Your task to perform on an android device: change the clock display to digital Image 0: 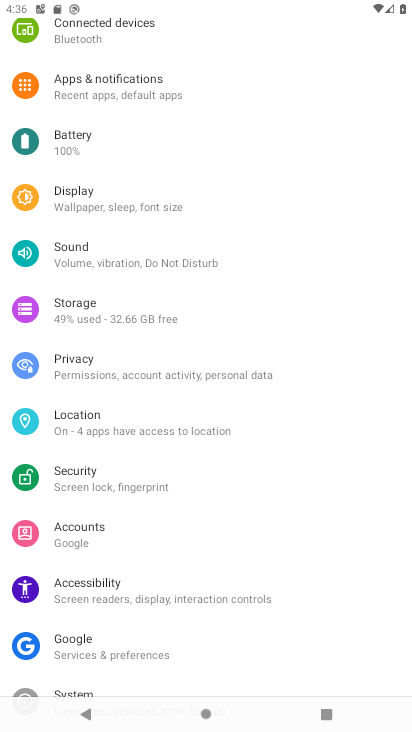
Step 0: press back button
Your task to perform on an android device: change the clock display to digital Image 1: 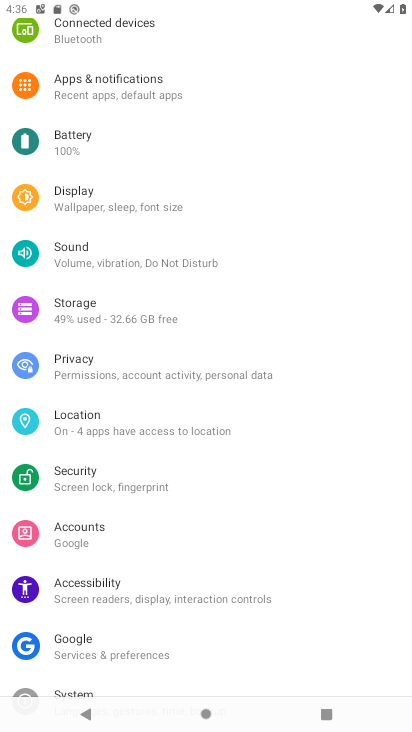
Step 1: press back button
Your task to perform on an android device: change the clock display to digital Image 2: 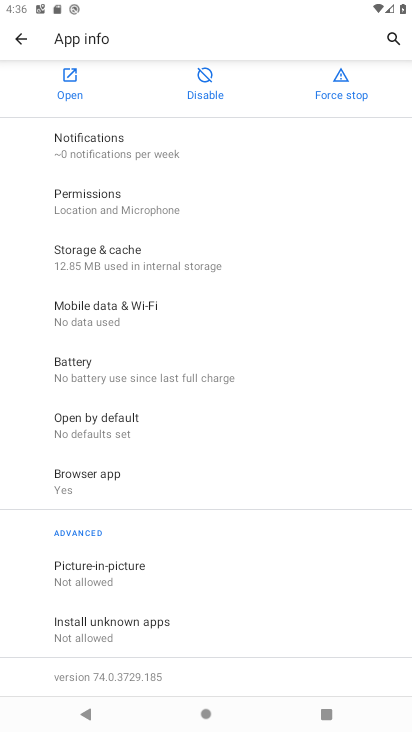
Step 2: press home button
Your task to perform on an android device: change the clock display to digital Image 3: 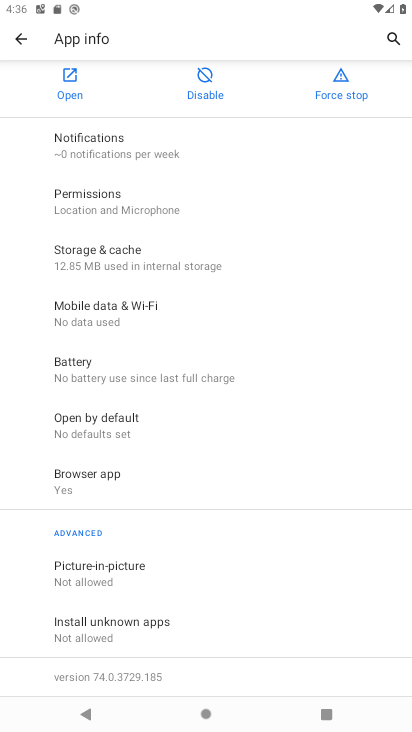
Step 3: press home button
Your task to perform on an android device: change the clock display to digital Image 4: 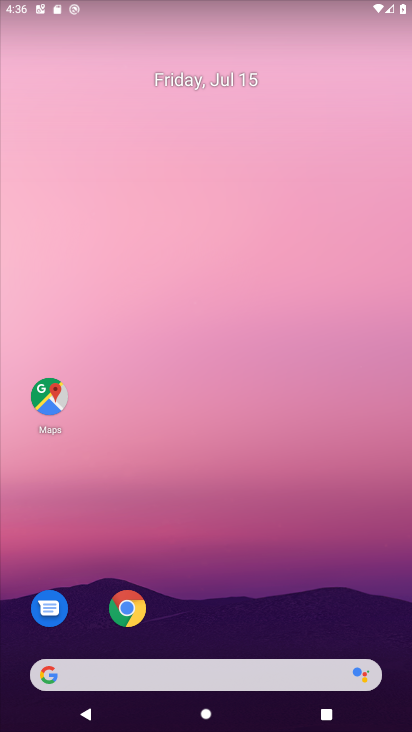
Step 4: drag from (277, 582) to (293, 111)
Your task to perform on an android device: change the clock display to digital Image 5: 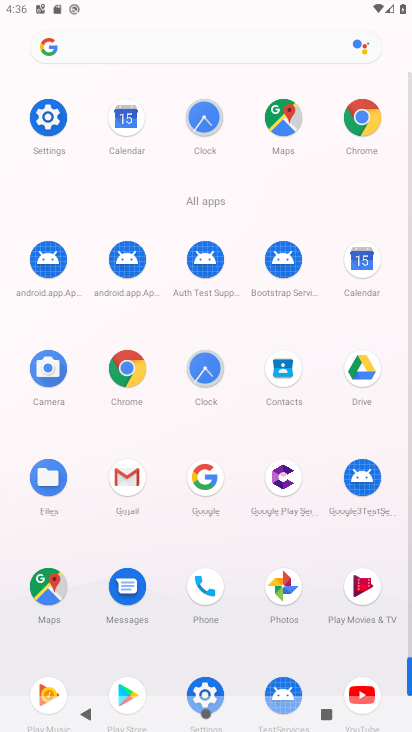
Step 5: click (203, 365)
Your task to perform on an android device: change the clock display to digital Image 6: 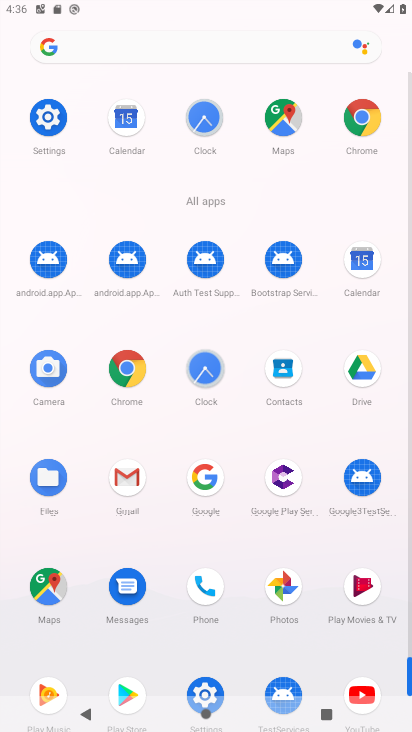
Step 6: click (204, 366)
Your task to perform on an android device: change the clock display to digital Image 7: 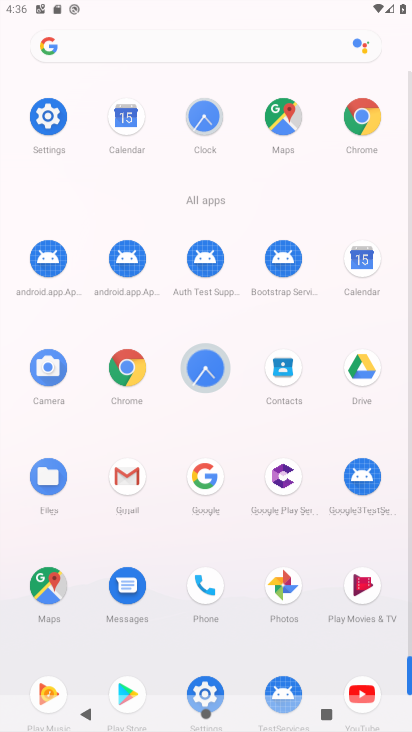
Step 7: click (205, 366)
Your task to perform on an android device: change the clock display to digital Image 8: 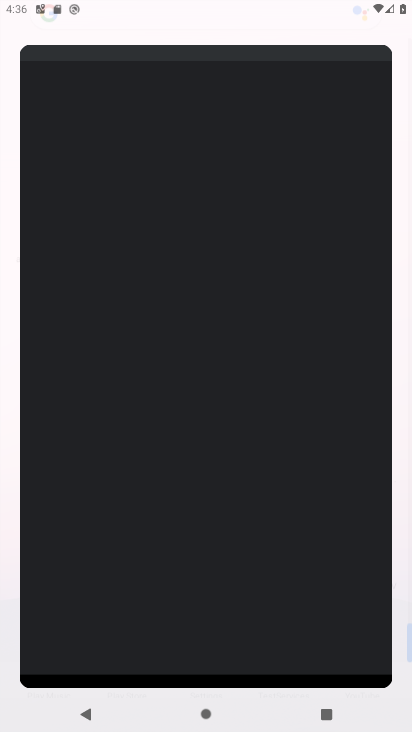
Step 8: click (206, 366)
Your task to perform on an android device: change the clock display to digital Image 9: 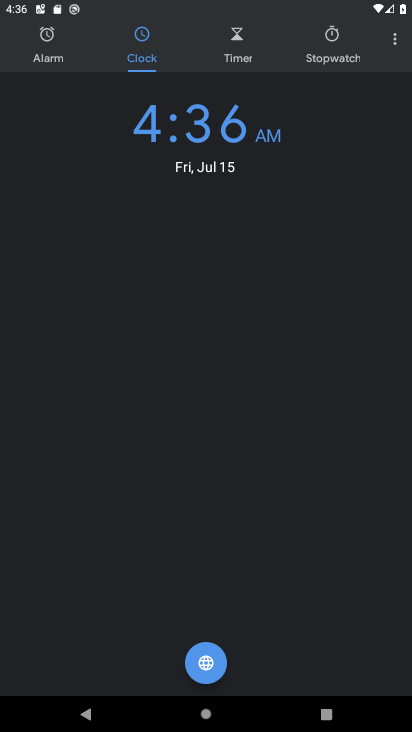
Step 9: drag from (396, 43) to (248, 378)
Your task to perform on an android device: change the clock display to digital Image 10: 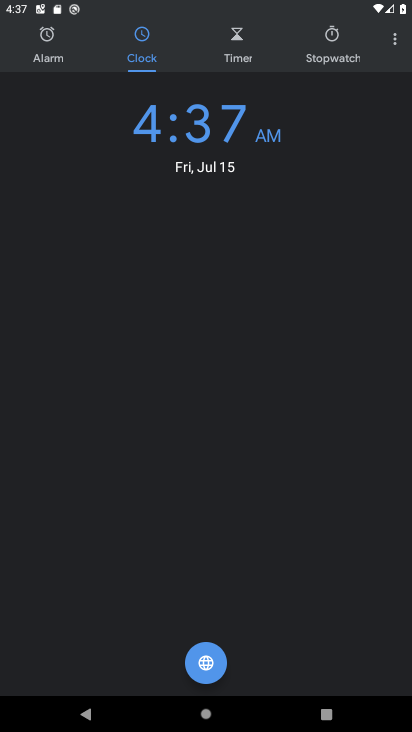
Step 10: drag from (397, 40) to (296, 69)
Your task to perform on an android device: change the clock display to digital Image 11: 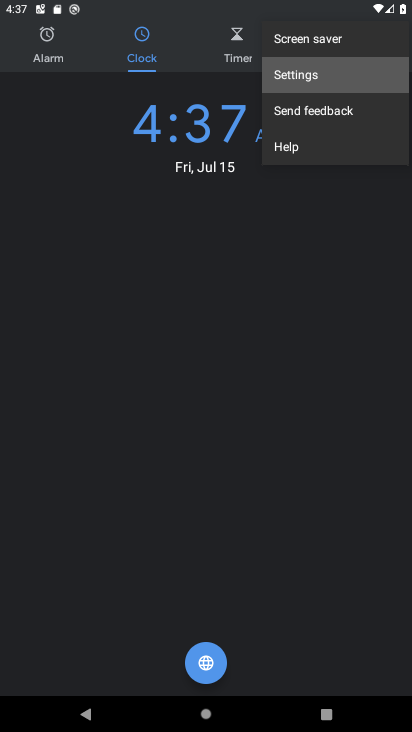
Step 11: click (296, 69)
Your task to perform on an android device: change the clock display to digital Image 12: 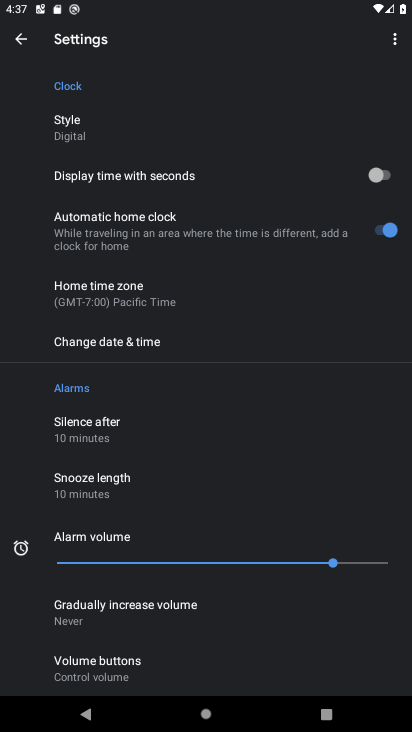
Step 12: click (379, 172)
Your task to perform on an android device: change the clock display to digital Image 13: 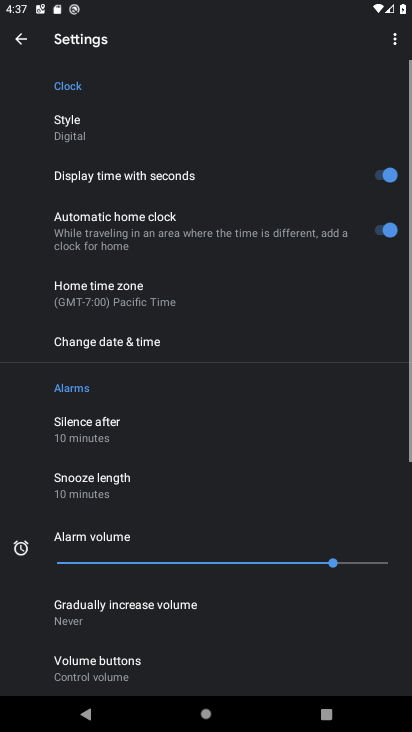
Step 13: click (387, 173)
Your task to perform on an android device: change the clock display to digital Image 14: 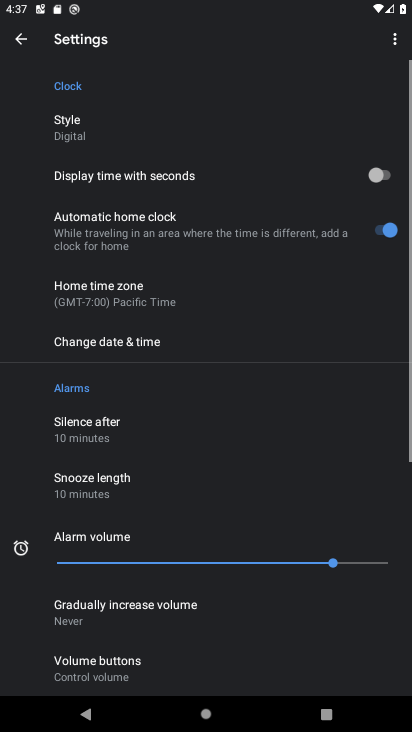
Step 14: click (110, 124)
Your task to perform on an android device: change the clock display to digital Image 15: 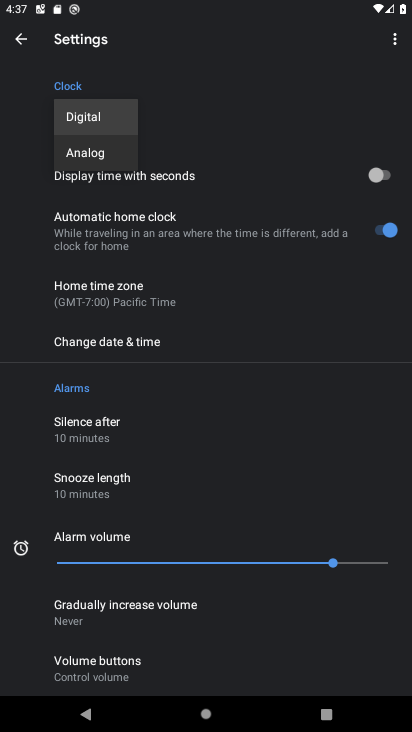
Step 15: click (103, 109)
Your task to perform on an android device: change the clock display to digital Image 16: 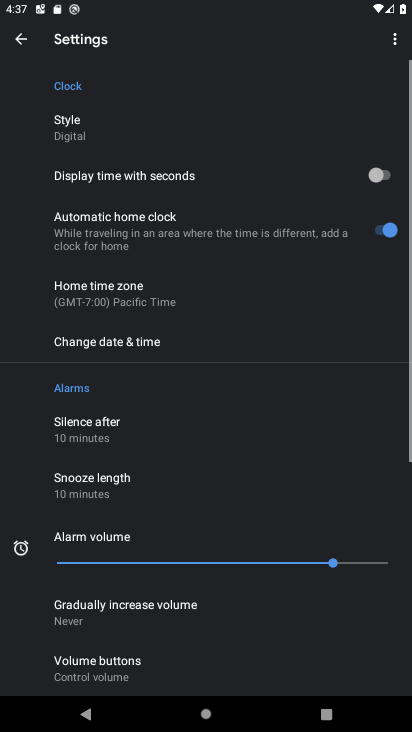
Step 16: task complete